Your task to perform on an android device: Is it going to rain tomorrow? Image 0: 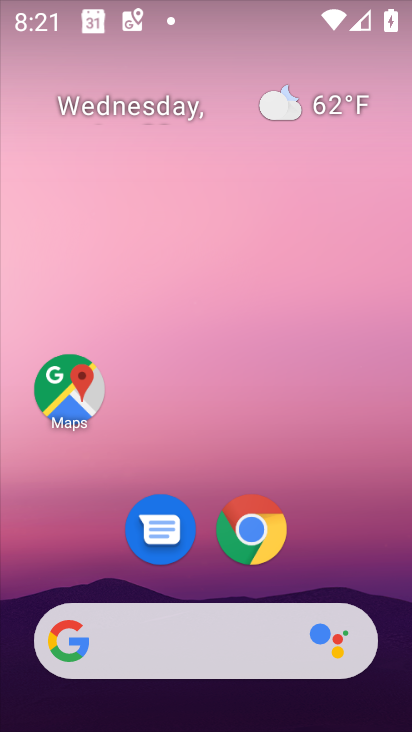
Step 0: click (255, 536)
Your task to perform on an android device: Is it going to rain tomorrow? Image 1: 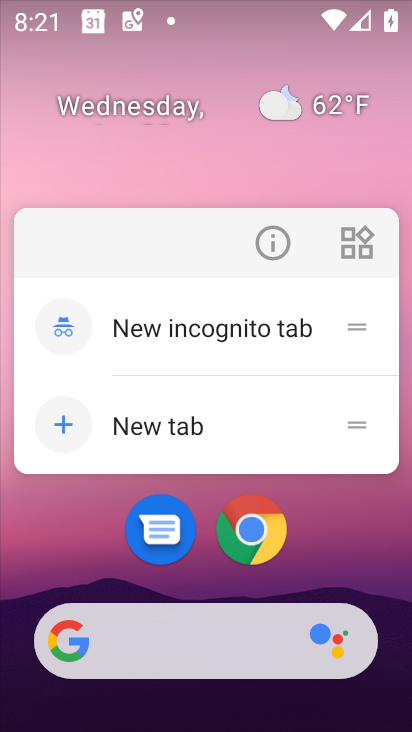
Step 1: click (269, 252)
Your task to perform on an android device: Is it going to rain tomorrow? Image 2: 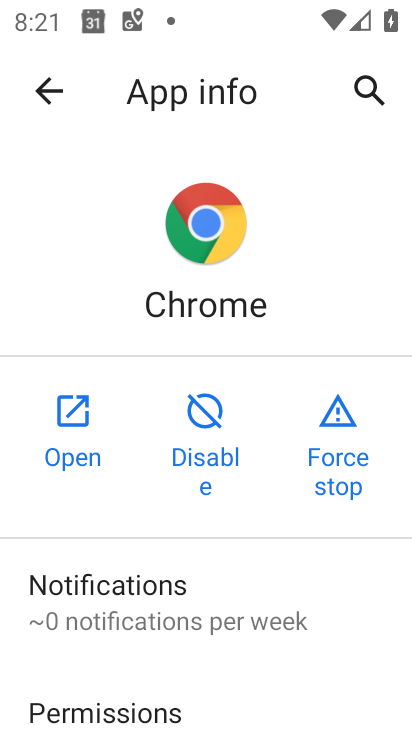
Step 2: click (86, 429)
Your task to perform on an android device: Is it going to rain tomorrow? Image 3: 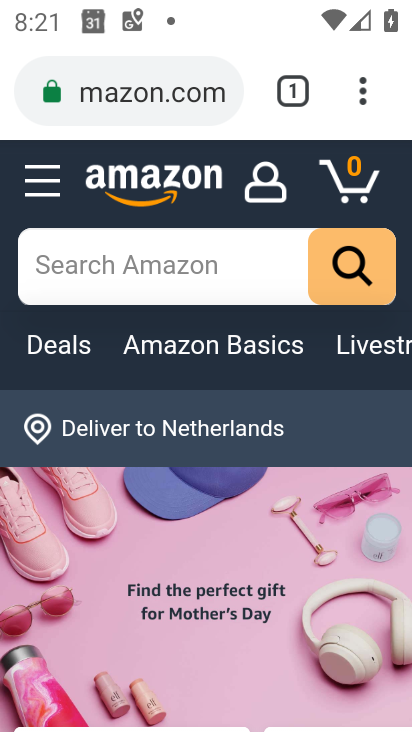
Step 3: click (168, 96)
Your task to perform on an android device: Is it going to rain tomorrow? Image 4: 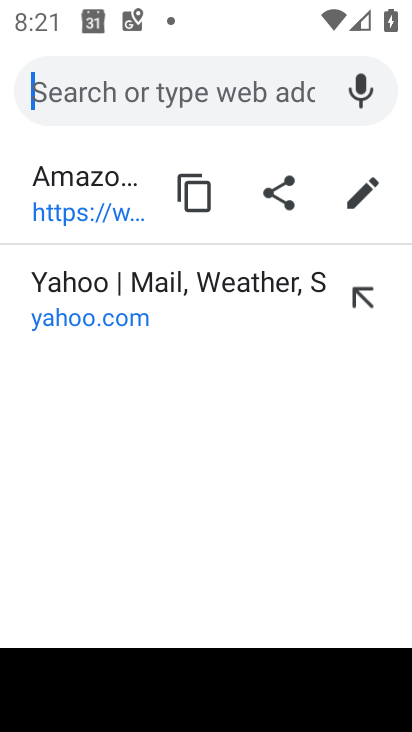
Step 4: type "is it going to rain tomorrow?"
Your task to perform on an android device: Is it going to rain tomorrow? Image 5: 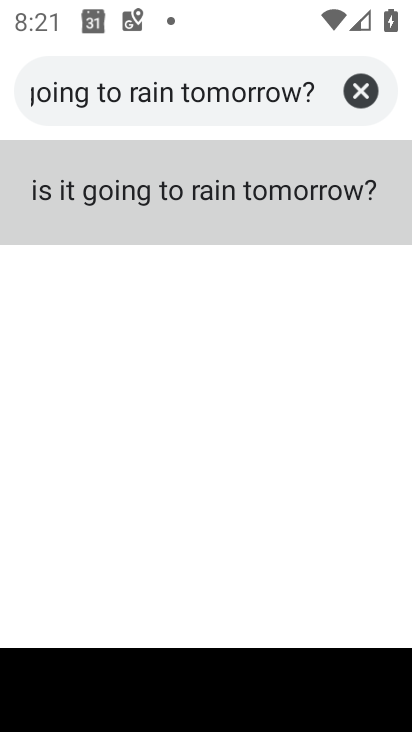
Step 5: click (138, 188)
Your task to perform on an android device: Is it going to rain tomorrow? Image 6: 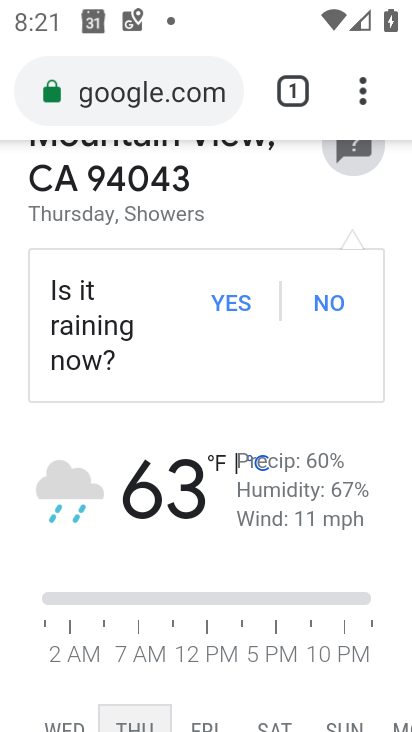
Step 6: task complete